Your task to perform on an android device: change the clock style Image 0: 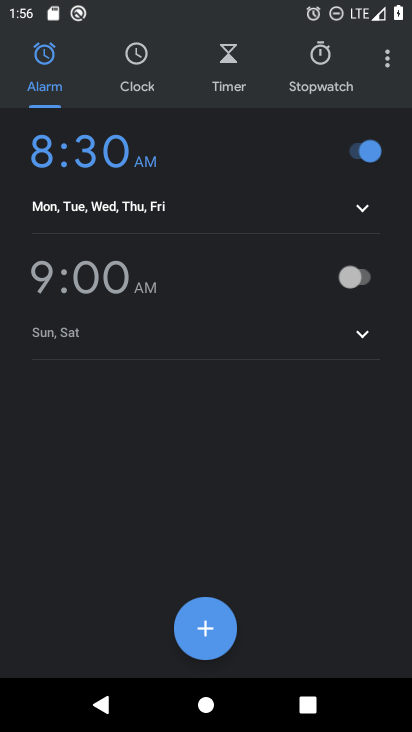
Step 0: click (384, 80)
Your task to perform on an android device: change the clock style Image 1: 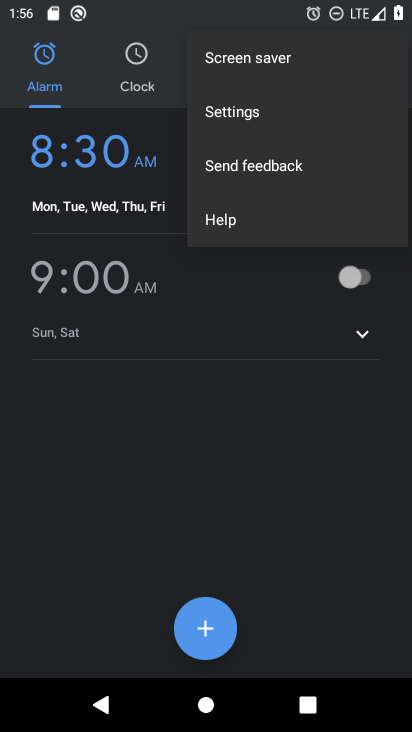
Step 1: click (254, 110)
Your task to perform on an android device: change the clock style Image 2: 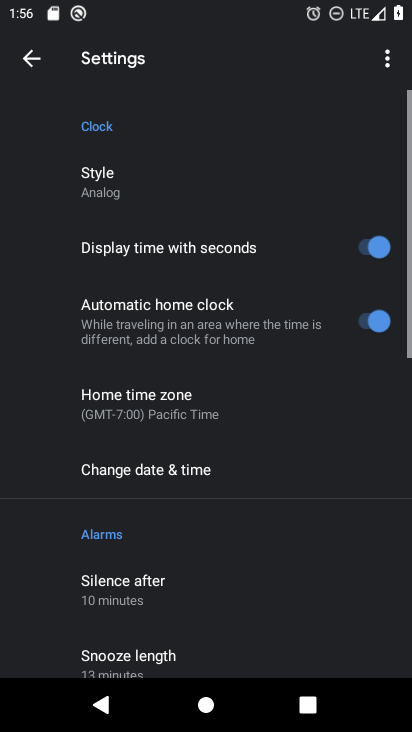
Step 2: click (186, 183)
Your task to perform on an android device: change the clock style Image 3: 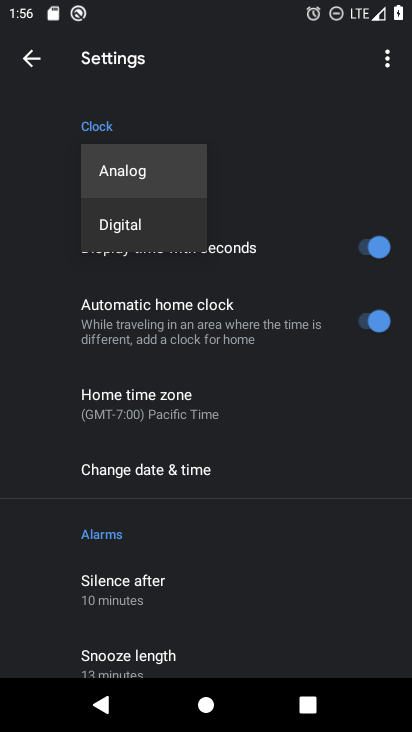
Step 3: click (142, 220)
Your task to perform on an android device: change the clock style Image 4: 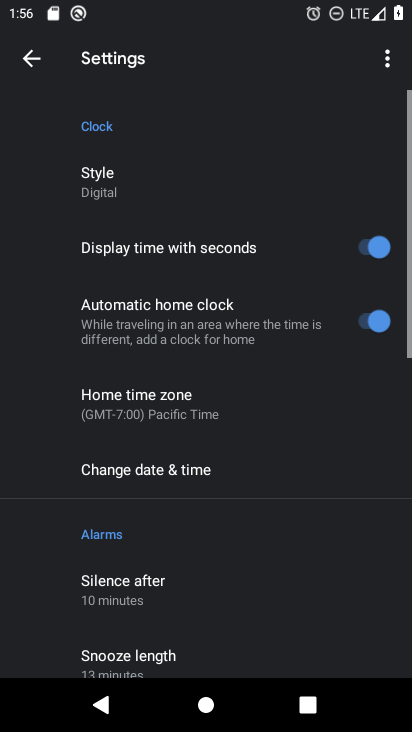
Step 4: task complete